Your task to perform on an android device: Open Maps and search for coffee Image 0: 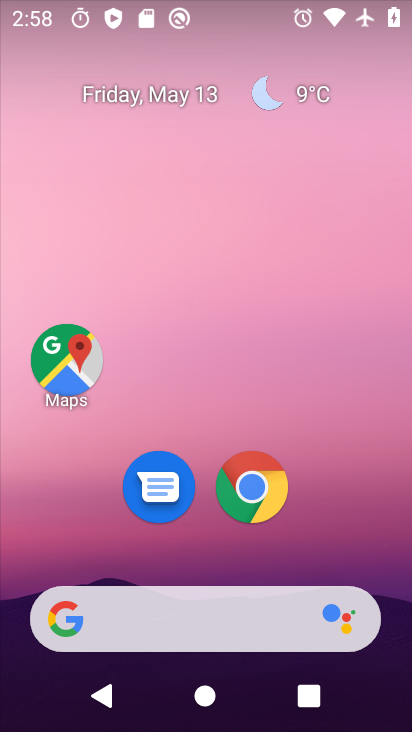
Step 0: click (67, 370)
Your task to perform on an android device: Open Maps and search for coffee Image 1: 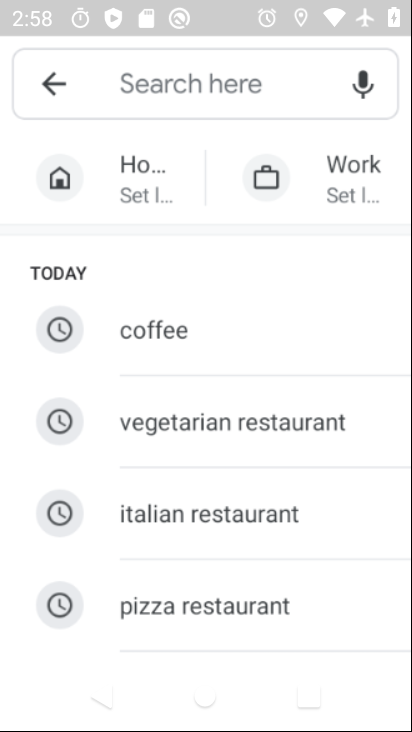
Step 1: click (210, 104)
Your task to perform on an android device: Open Maps and search for coffee Image 2: 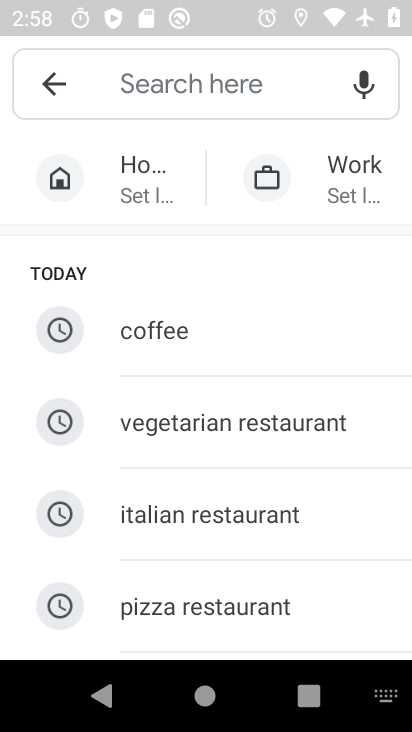
Step 2: click (160, 338)
Your task to perform on an android device: Open Maps and search for coffee Image 3: 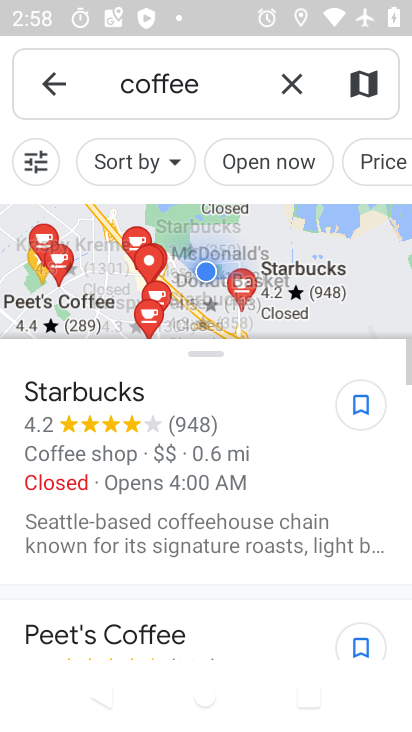
Step 3: task complete